Your task to perform on an android device: Go to ESPN.com Image 0: 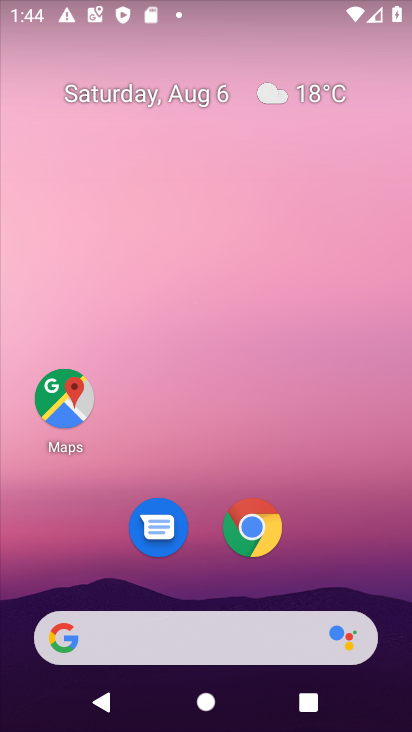
Step 0: drag from (220, 563) to (194, 154)
Your task to perform on an android device: Go to ESPN.com Image 1: 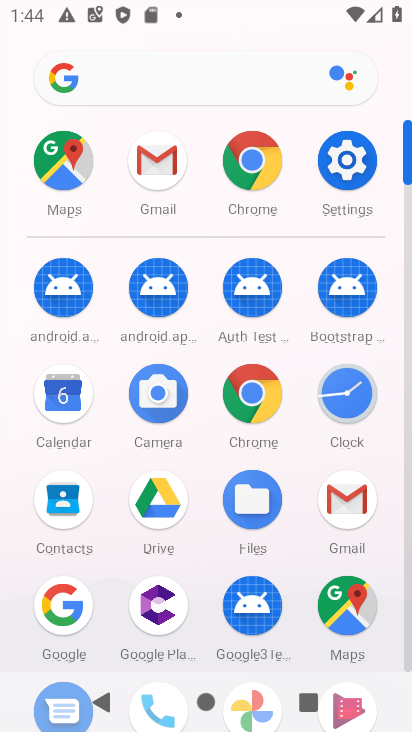
Step 1: click (242, 417)
Your task to perform on an android device: Go to ESPN.com Image 2: 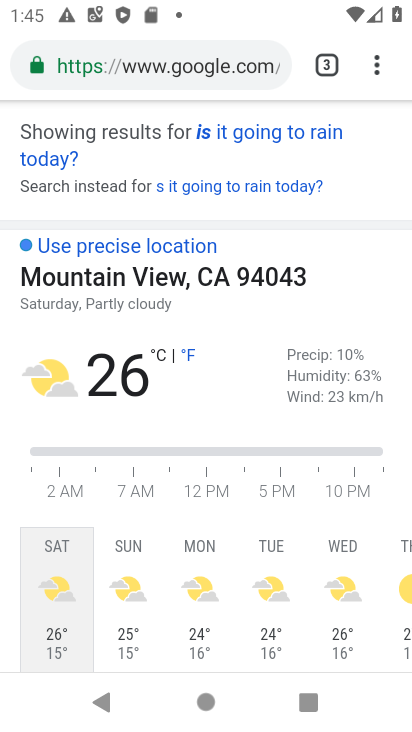
Step 2: click (312, 76)
Your task to perform on an android device: Go to ESPN.com Image 3: 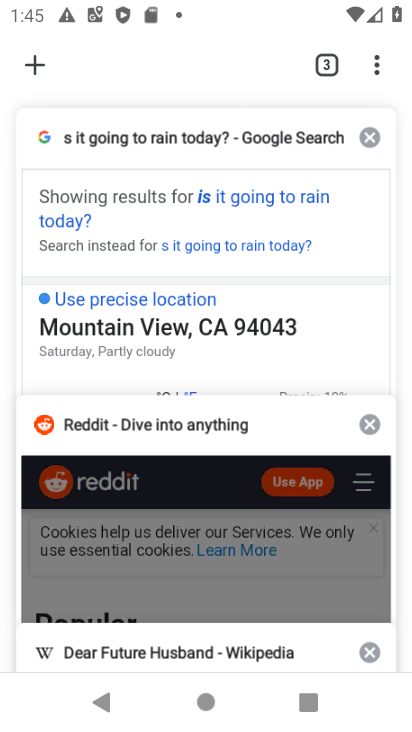
Step 3: click (43, 60)
Your task to perform on an android device: Go to ESPN.com Image 4: 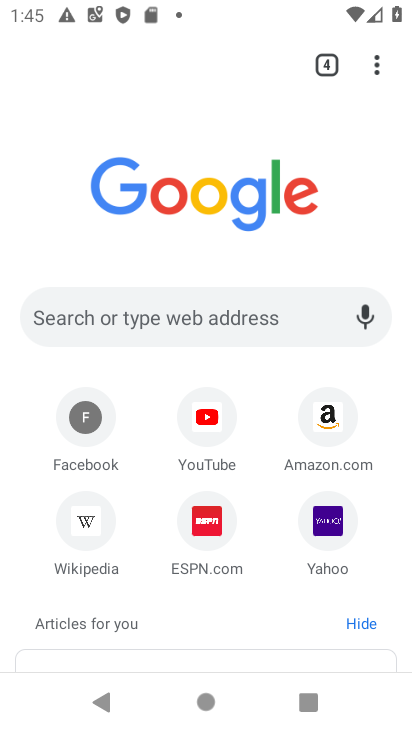
Step 4: click (202, 530)
Your task to perform on an android device: Go to ESPN.com Image 5: 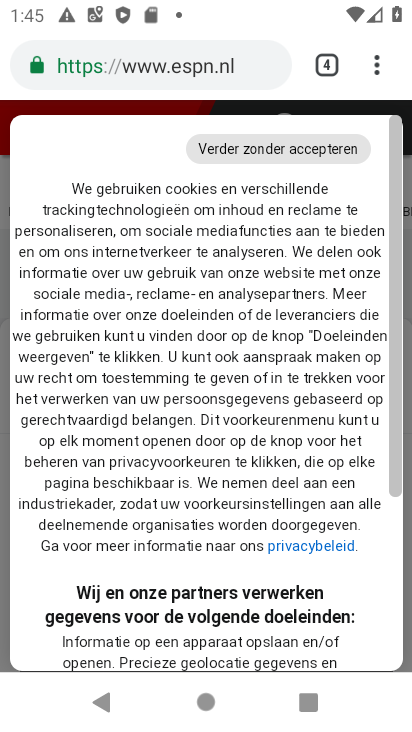
Step 5: task complete